Your task to perform on an android device: Go to Google Image 0: 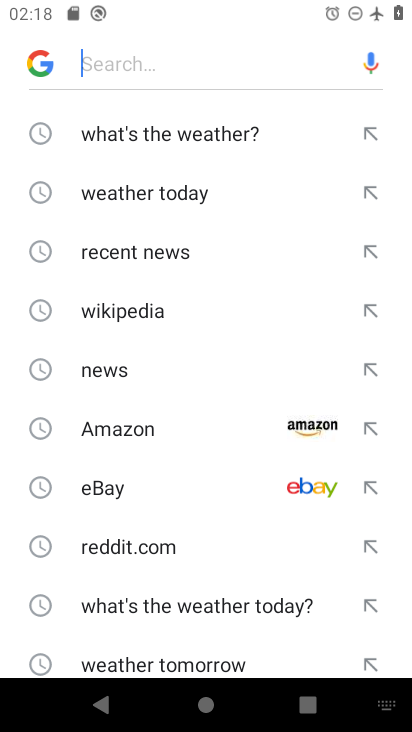
Step 0: click (44, 51)
Your task to perform on an android device: Go to Google Image 1: 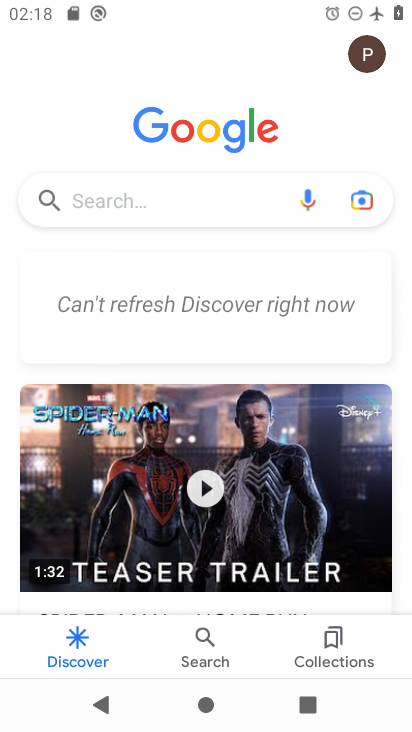
Step 1: task complete